Your task to perform on an android device: open sync settings in chrome Image 0: 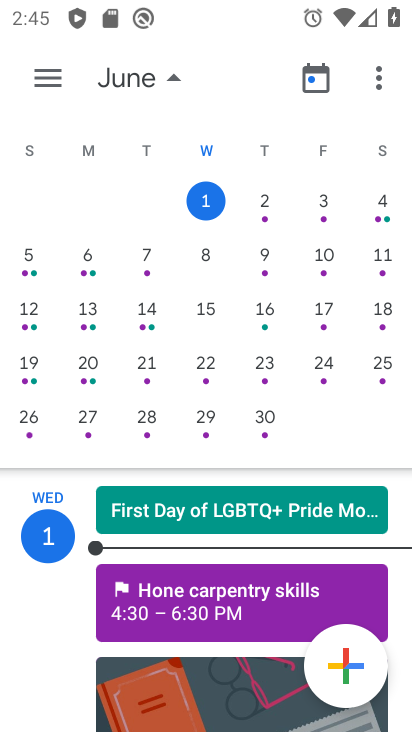
Step 0: press home button
Your task to perform on an android device: open sync settings in chrome Image 1: 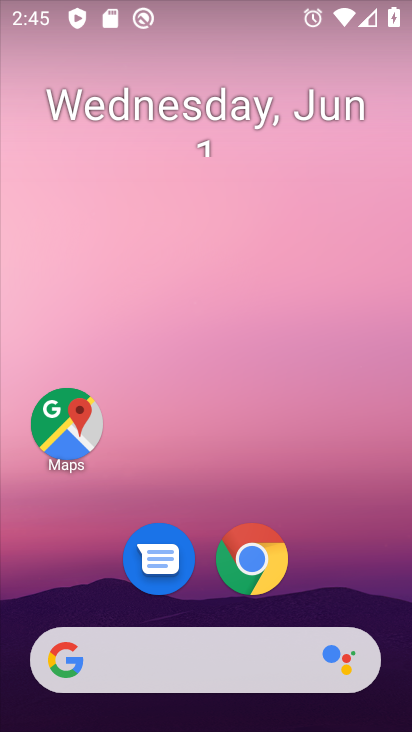
Step 1: click (245, 554)
Your task to perform on an android device: open sync settings in chrome Image 2: 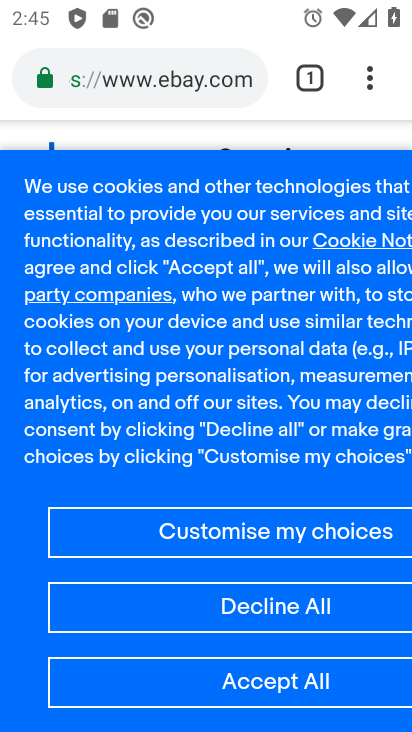
Step 2: click (364, 90)
Your task to perform on an android device: open sync settings in chrome Image 3: 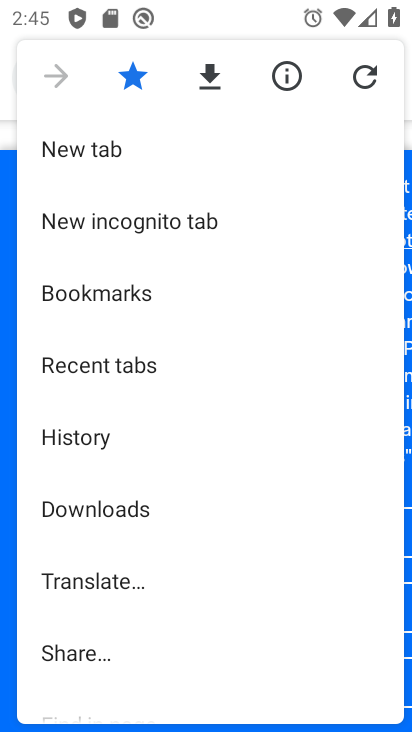
Step 3: drag from (149, 656) to (102, 191)
Your task to perform on an android device: open sync settings in chrome Image 4: 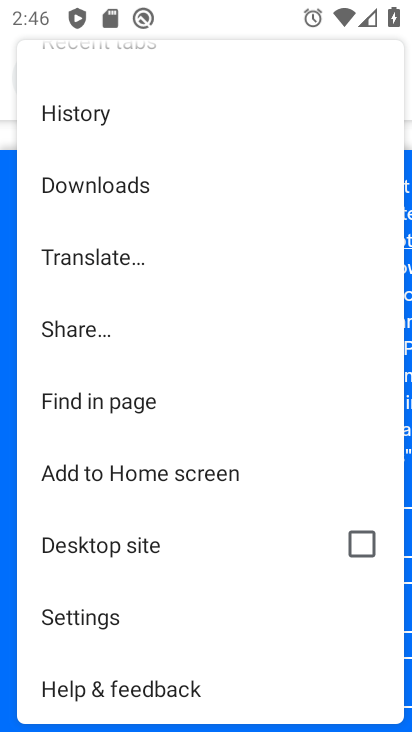
Step 4: click (76, 627)
Your task to perform on an android device: open sync settings in chrome Image 5: 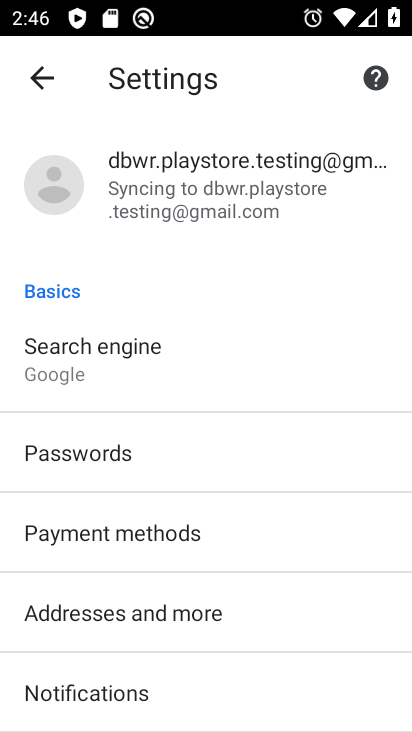
Step 5: click (181, 181)
Your task to perform on an android device: open sync settings in chrome Image 6: 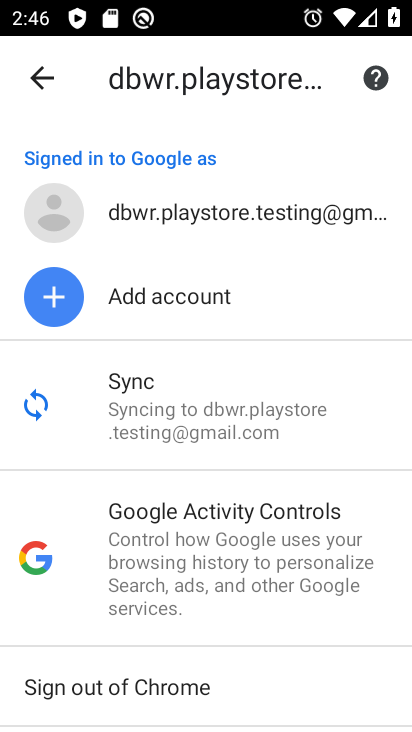
Step 6: click (177, 406)
Your task to perform on an android device: open sync settings in chrome Image 7: 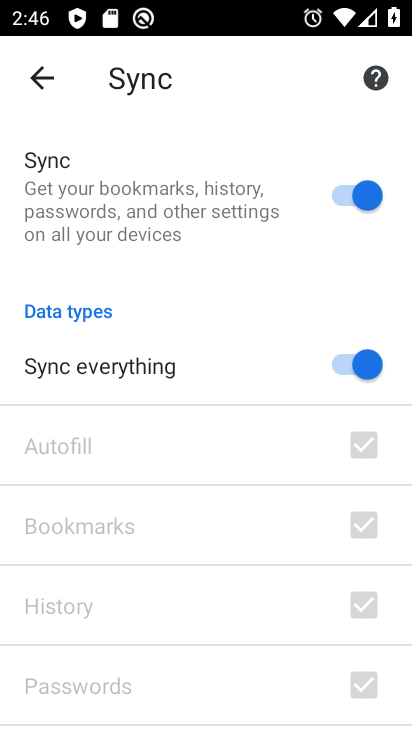
Step 7: task complete